Your task to perform on an android device: Open Google Maps Image 0: 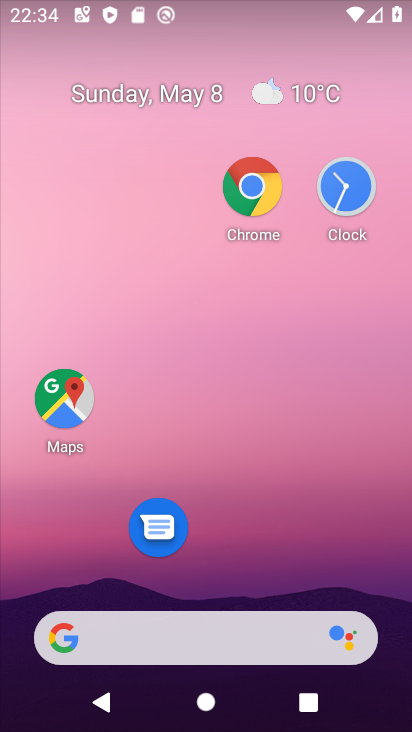
Step 0: click (76, 396)
Your task to perform on an android device: Open Google Maps Image 1: 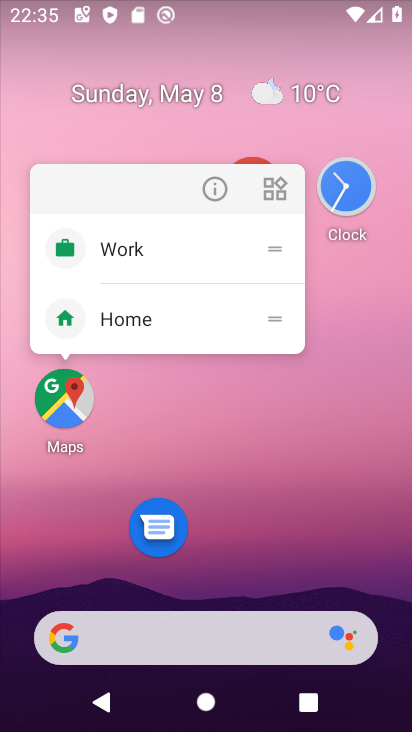
Step 1: click (59, 400)
Your task to perform on an android device: Open Google Maps Image 2: 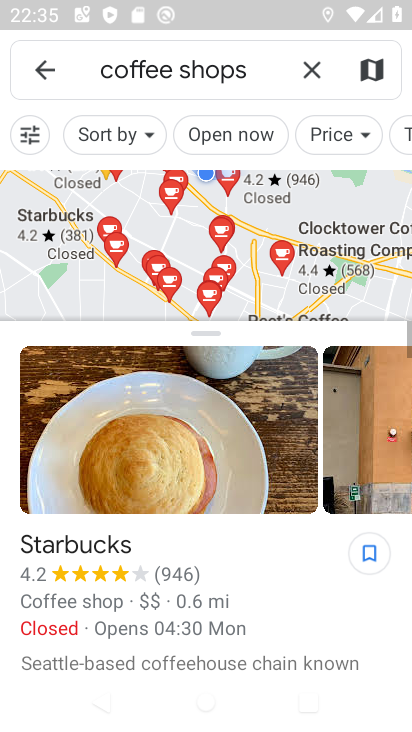
Step 2: task complete